Your task to perform on an android device: turn pop-ups off in chrome Image 0: 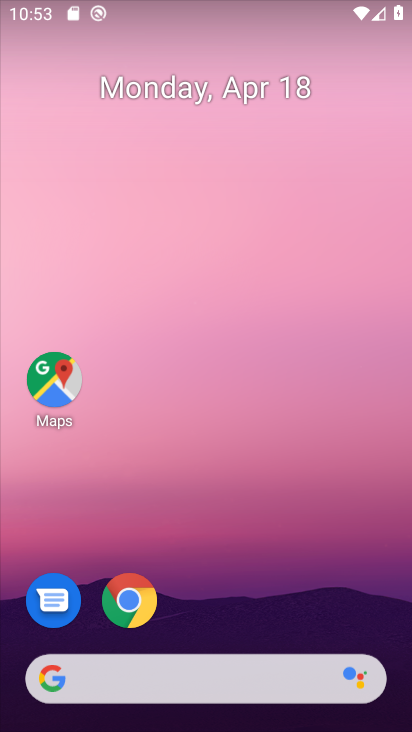
Step 0: click (135, 611)
Your task to perform on an android device: turn pop-ups off in chrome Image 1: 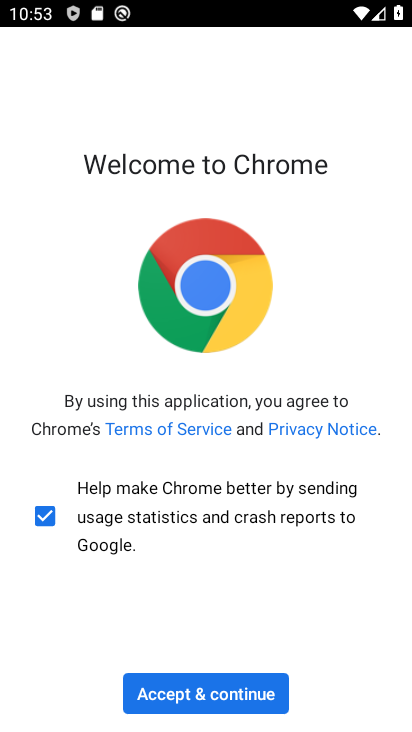
Step 1: click (218, 693)
Your task to perform on an android device: turn pop-ups off in chrome Image 2: 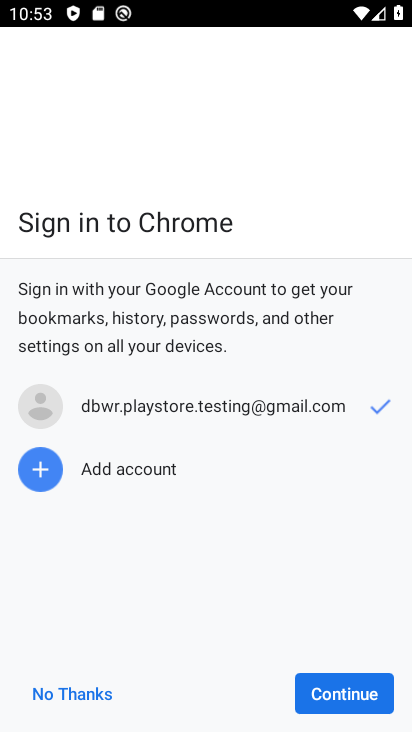
Step 2: click (327, 718)
Your task to perform on an android device: turn pop-ups off in chrome Image 3: 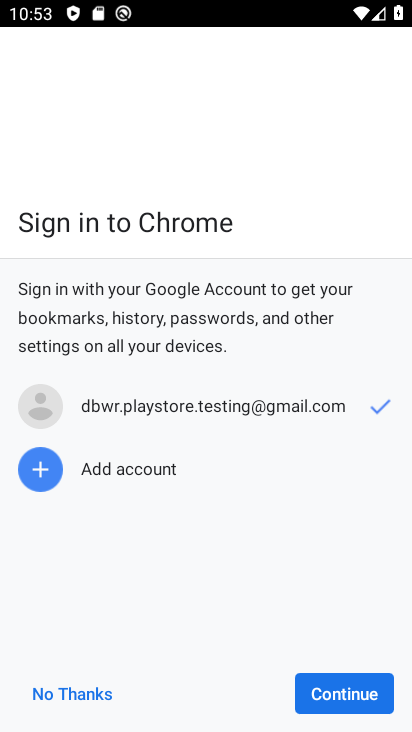
Step 3: click (338, 695)
Your task to perform on an android device: turn pop-ups off in chrome Image 4: 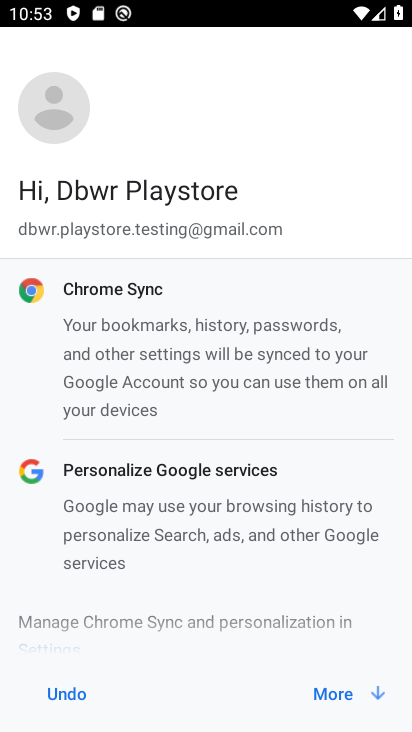
Step 4: click (338, 695)
Your task to perform on an android device: turn pop-ups off in chrome Image 5: 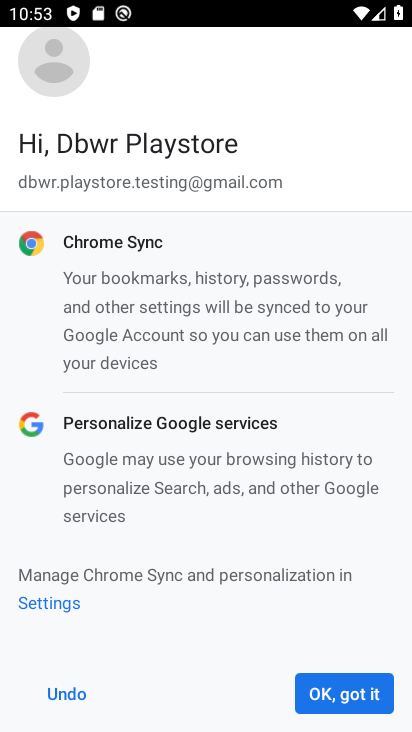
Step 5: click (338, 695)
Your task to perform on an android device: turn pop-ups off in chrome Image 6: 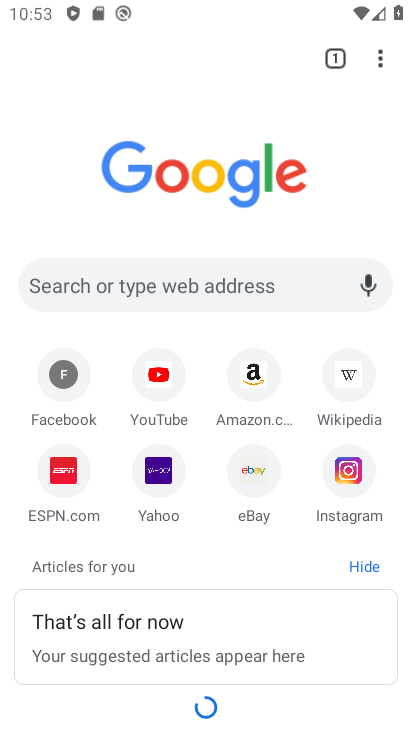
Step 6: click (386, 52)
Your task to perform on an android device: turn pop-ups off in chrome Image 7: 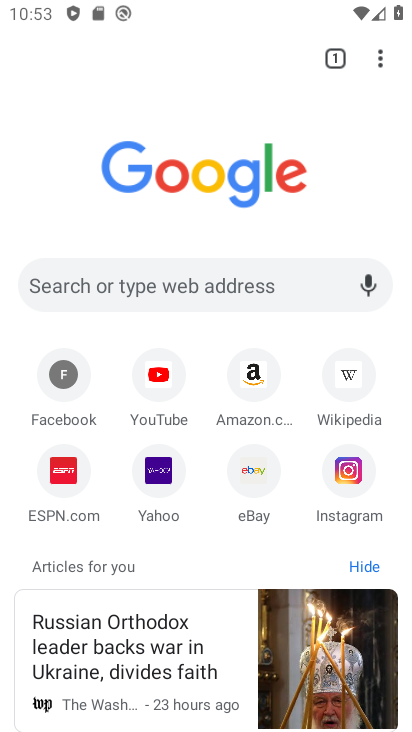
Step 7: click (380, 56)
Your task to perform on an android device: turn pop-ups off in chrome Image 8: 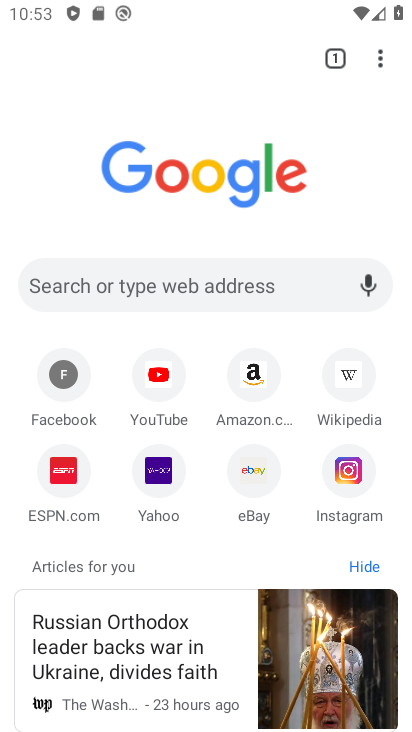
Step 8: click (382, 54)
Your task to perform on an android device: turn pop-ups off in chrome Image 9: 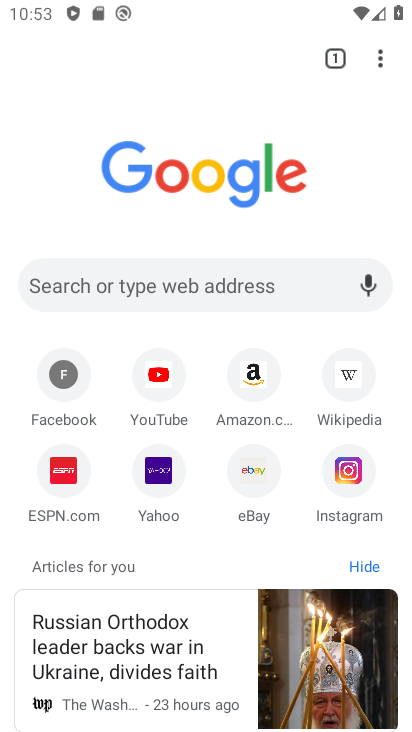
Step 9: click (377, 54)
Your task to perform on an android device: turn pop-ups off in chrome Image 10: 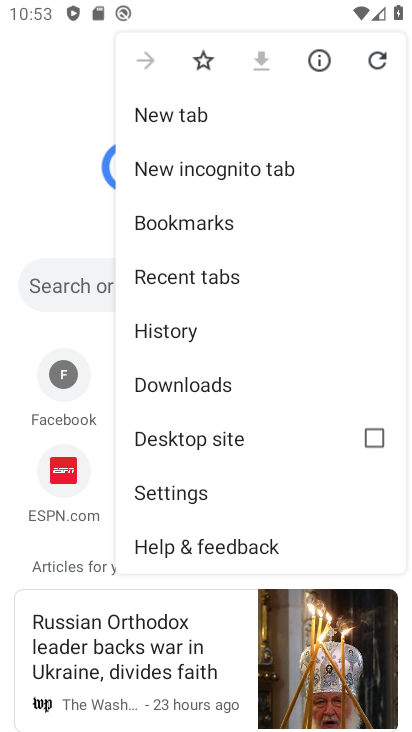
Step 10: click (191, 487)
Your task to perform on an android device: turn pop-ups off in chrome Image 11: 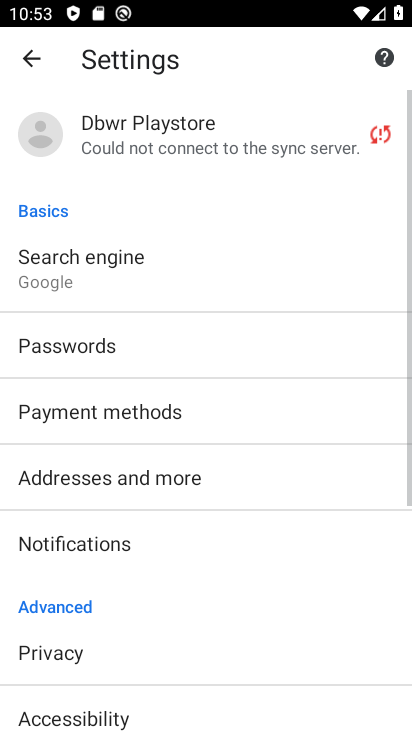
Step 11: drag from (110, 528) to (107, 217)
Your task to perform on an android device: turn pop-ups off in chrome Image 12: 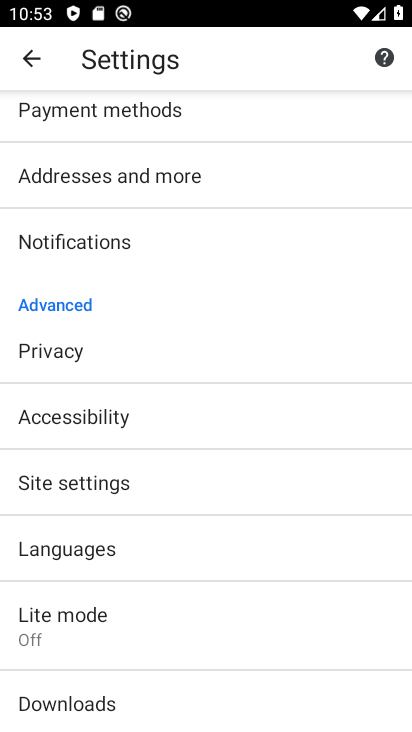
Step 12: click (41, 482)
Your task to perform on an android device: turn pop-ups off in chrome Image 13: 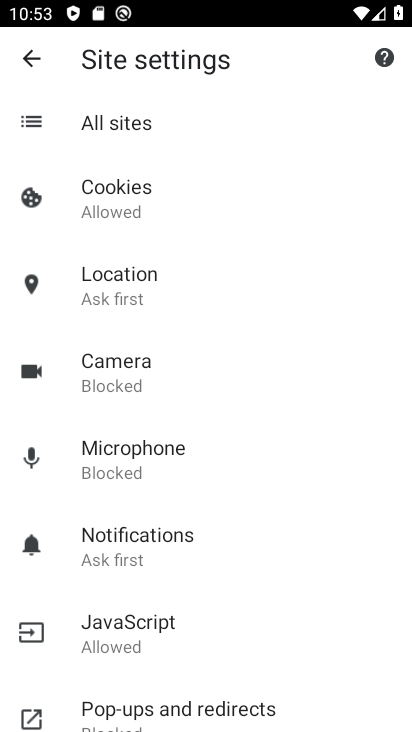
Step 13: click (121, 705)
Your task to perform on an android device: turn pop-ups off in chrome Image 14: 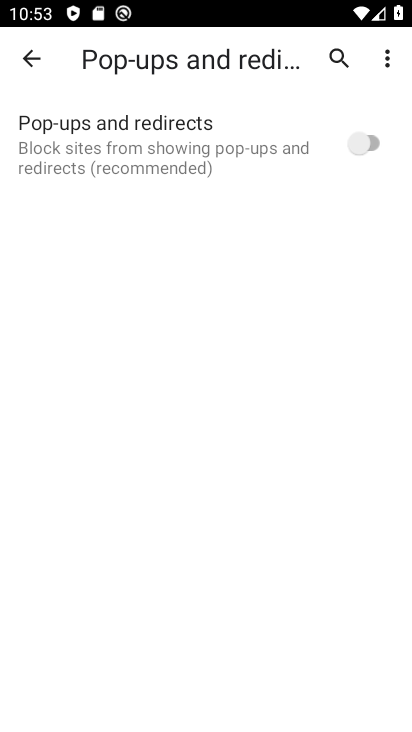
Step 14: task complete